Your task to perform on an android device: Clear the shopping cart on walmart.com. Search for logitech g903 on walmart.com, select the first entry, add it to the cart, then select checkout. Image 0: 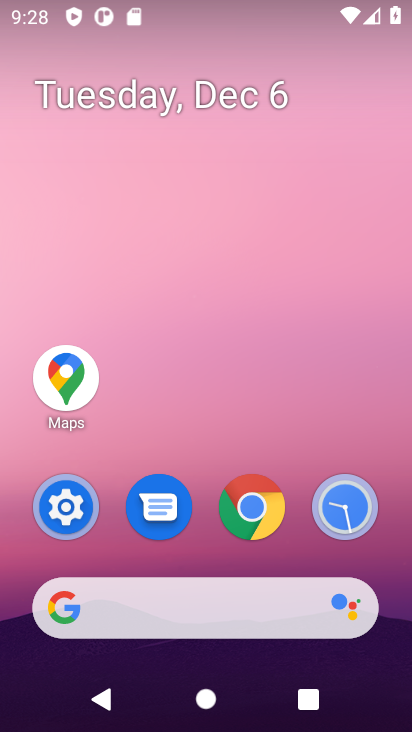
Step 0: press home button
Your task to perform on an android device: Clear the shopping cart on walmart.com. Search for logitech g903 on walmart.com, select the first entry, add it to the cart, then select checkout. Image 1: 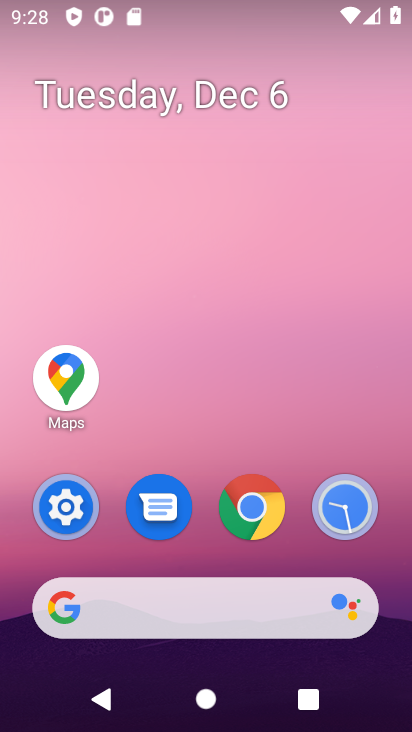
Step 1: click (105, 602)
Your task to perform on an android device: Clear the shopping cart on walmart.com. Search for logitech g903 on walmart.com, select the first entry, add it to the cart, then select checkout. Image 2: 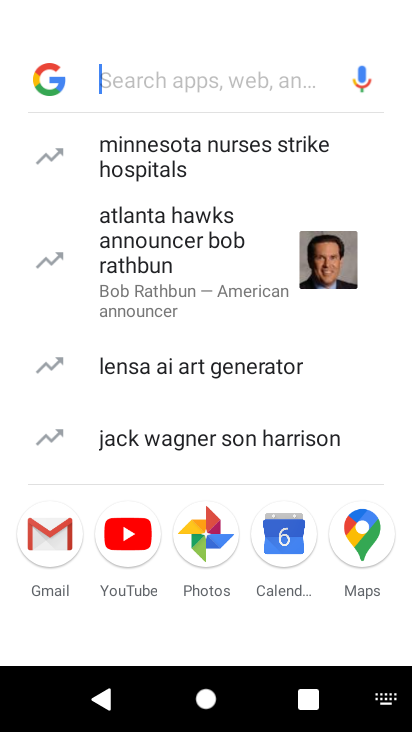
Step 2: type "walmart.com"
Your task to perform on an android device: Clear the shopping cart on walmart.com. Search for logitech g903 on walmart.com, select the first entry, add it to the cart, then select checkout. Image 3: 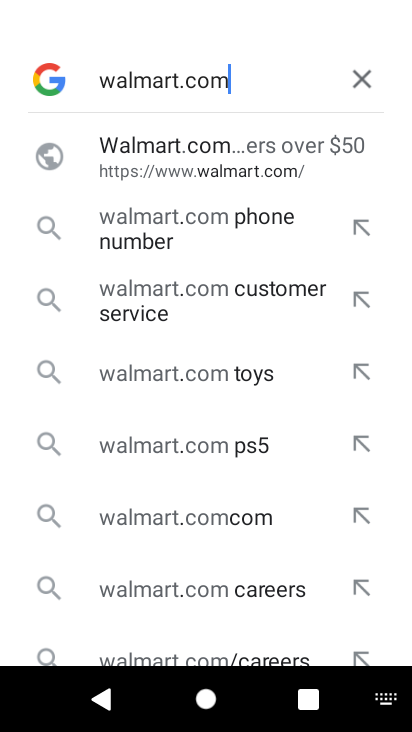
Step 3: press enter
Your task to perform on an android device: Clear the shopping cart on walmart.com. Search for logitech g903 on walmart.com, select the first entry, add it to the cart, then select checkout. Image 4: 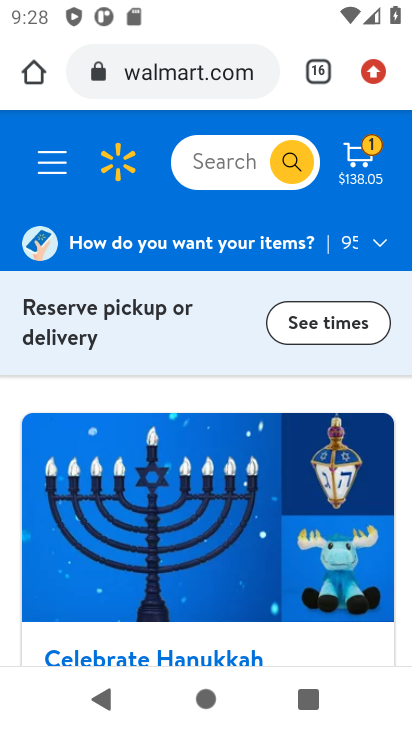
Step 4: click (359, 148)
Your task to perform on an android device: Clear the shopping cart on walmart.com. Search for logitech g903 on walmart.com, select the first entry, add it to the cart, then select checkout. Image 5: 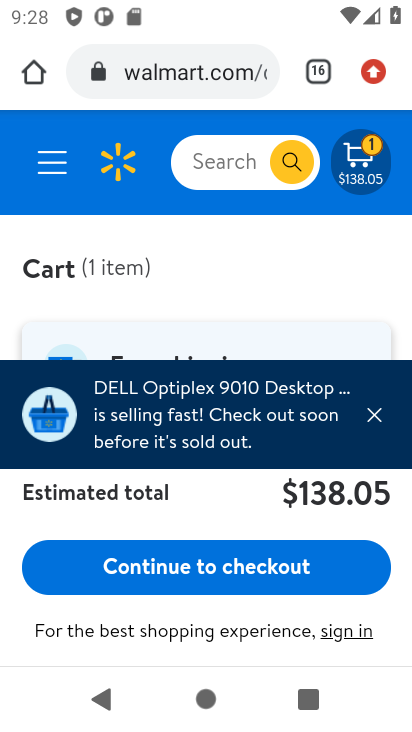
Step 5: drag from (261, 331) to (263, 219)
Your task to perform on an android device: Clear the shopping cart on walmart.com. Search for logitech g903 on walmart.com, select the first entry, add it to the cart, then select checkout. Image 6: 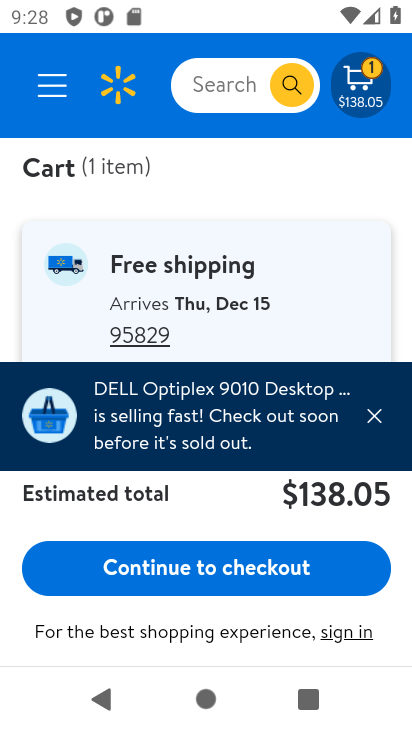
Step 6: click (376, 416)
Your task to perform on an android device: Clear the shopping cart on walmart.com. Search for logitech g903 on walmart.com, select the first entry, add it to the cart, then select checkout. Image 7: 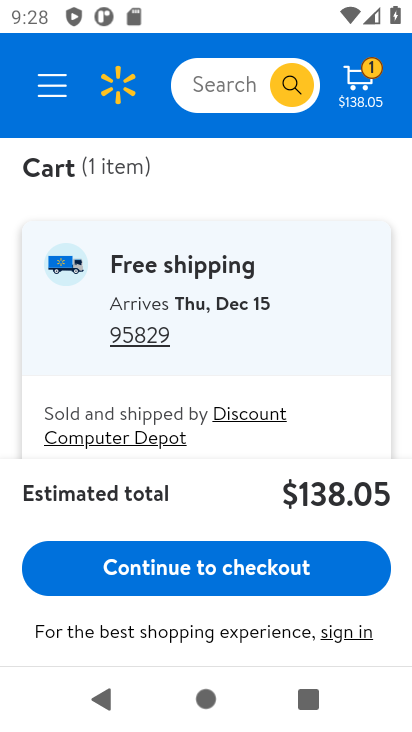
Step 7: drag from (244, 436) to (260, 216)
Your task to perform on an android device: Clear the shopping cart on walmart.com. Search for logitech g903 on walmart.com, select the first entry, add it to the cart, then select checkout. Image 8: 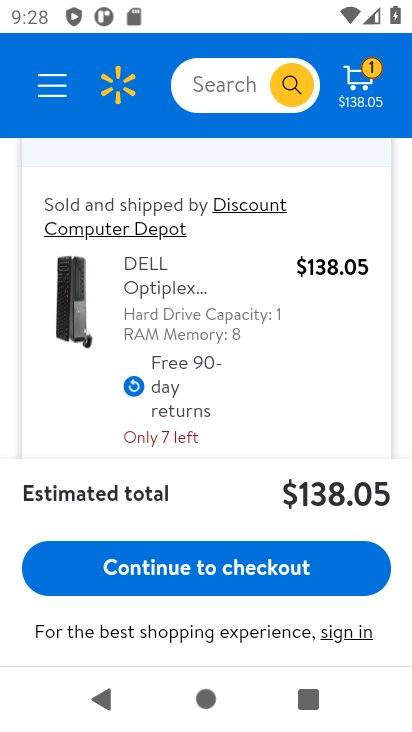
Step 8: drag from (250, 426) to (270, 208)
Your task to perform on an android device: Clear the shopping cart on walmart.com. Search for logitech g903 on walmart.com, select the first entry, add it to the cart, then select checkout. Image 9: 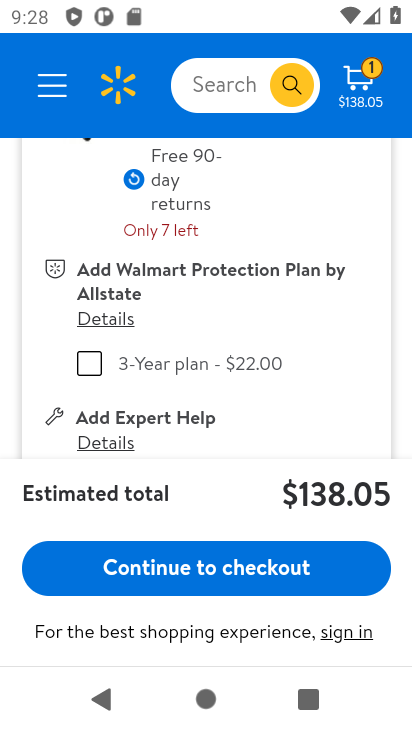
Step 9: drag from (215, 435) to (242, 199)
Your task to perform on an android device: Clear the shopping cart on walmart.com. Search for logitech g903 on walmart.com, select the first entry, add it to the cart, then select checkout. Image 10: 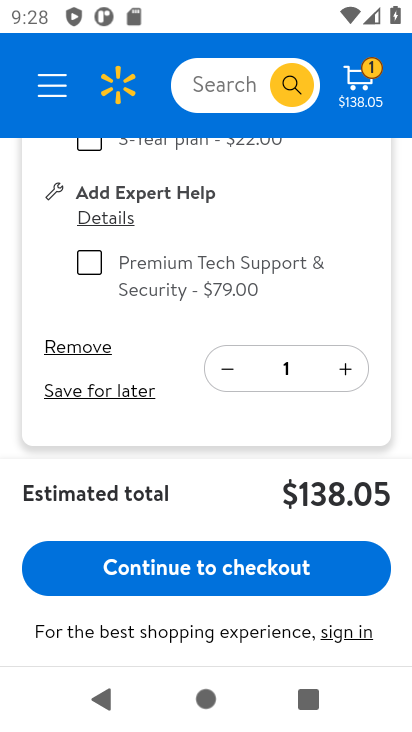
Step 10: click (63, 343)
Your task to perform on an android device: Clear the shopping cart on walmart.com. Search for logitech g903 on walmart.com, select the first entry, add it to the cart, then select checkout. Image 11: 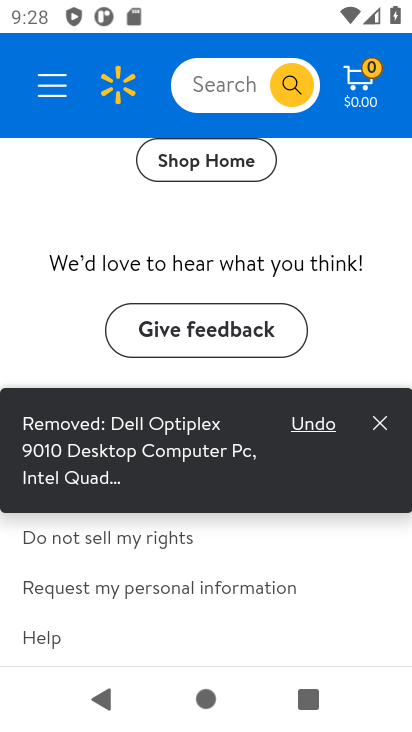
Step 11: click (219, 85)
Your task to perform on an android device: Clear the shopping cart on walmart.com. Search for logitech g903 on walmart.com, select the first entry, add it to the cart, then select checkout. Image 12: 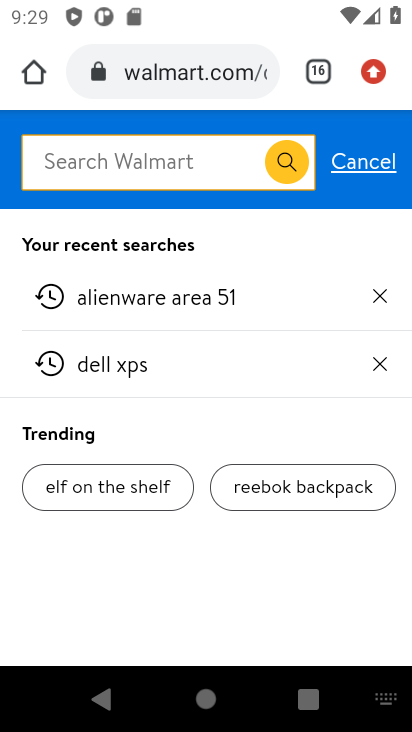
Step 12: type "logitech g903"
Your task to perform on an android device: Clear the shopping cart on walmart.com. Search for logitech g903 on walmart.com, select the first entry, add it to the cart, then select checkout. Image 13: 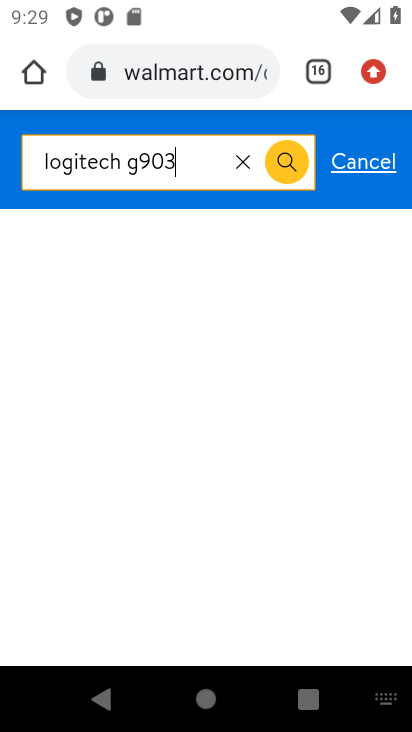
Step 13: press enter
Your task to perform on an android device: Clear the shopping cart on walmart.com. Search for logitech g903 on walmart.com, select the first entry, add it to the cart, then select checkout. Image 14: 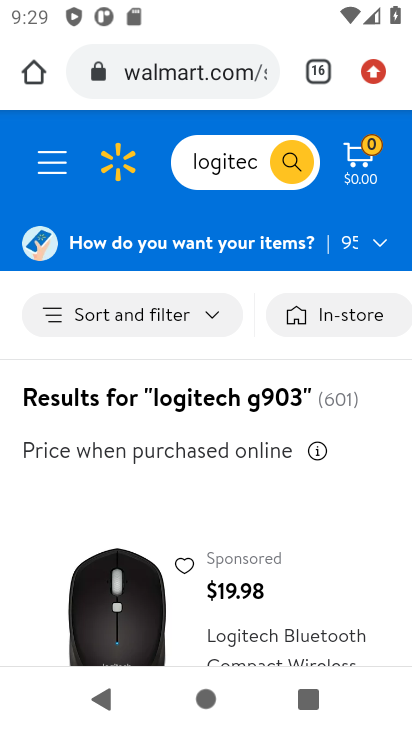
Step 14: drag from (277, 607) to (297, 349)
Your task to perform on an android device: Clear the shopping cart on walmart.com. Search for logitech g903 on walmart.com, select the first entry, add it to the cart, then select checkout. Image 15: 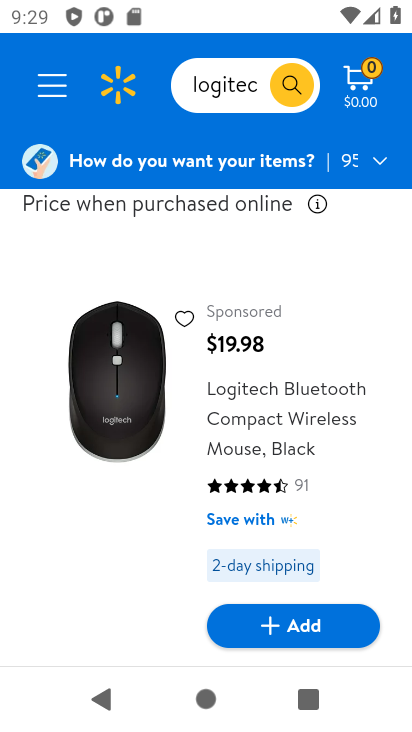
Step 15: drag from (346, 505) to (363, 341)
Your task to perform on an android device: Clear the shopping cart on walmart.com. Search for logitech g903 on walmart.com, select the first entry, add it to the cart, then select checkout. Image 16: 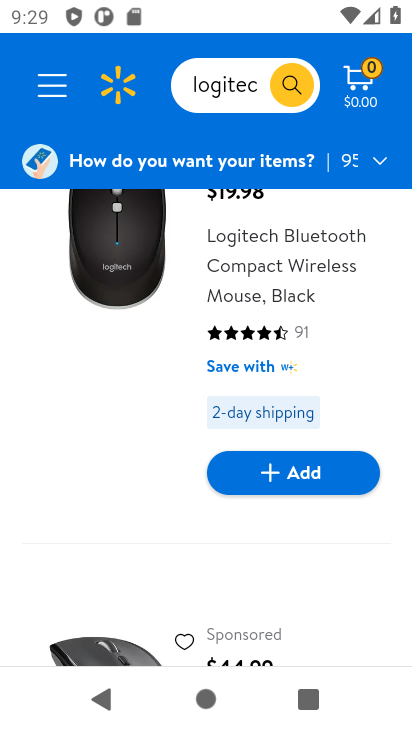
Step 16: click (285, 481)
Your task to perform on an android device: Clear the shopping cart on walmart.com. Search for logitech g903 on walmart.com, select the first entry, add it to the cart, then select checkout. Image 17: 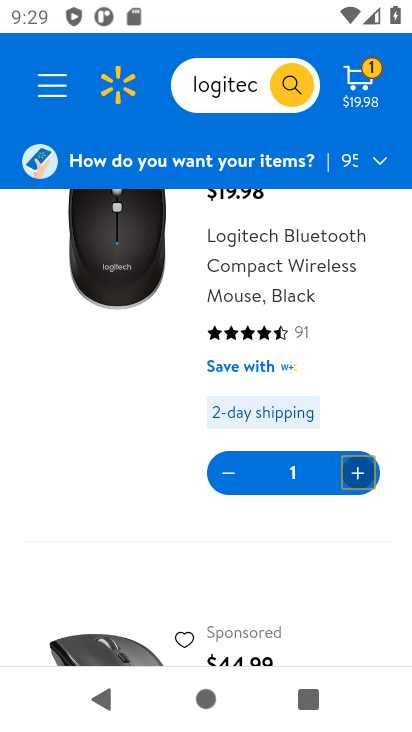
Step 17: task complete